Your task to perform on an android device: Open Yahoo.com Image 0: 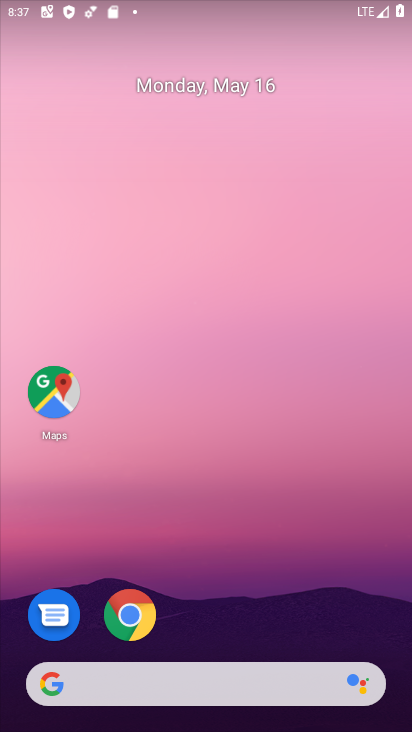
Step 0: click (148, 633)
Your task to perform on an android device: Open Yahoo.com Image 1: 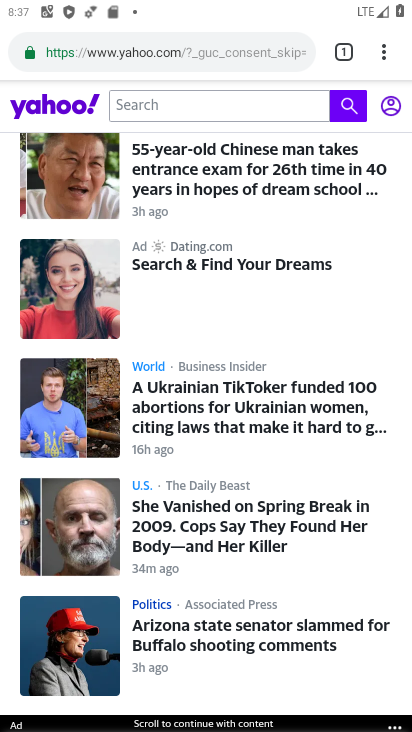
Step 1: task complete